Your task to perform on an android device: check battery use Image 0: 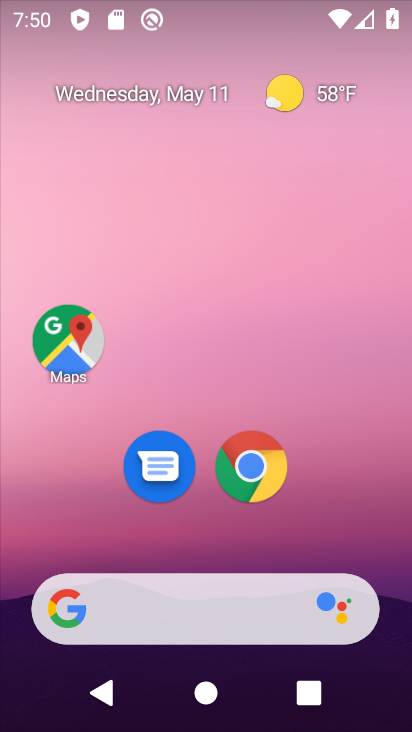
Step 0: click (274, 88)
Your task to perform on an android device: check battery use Image 1: 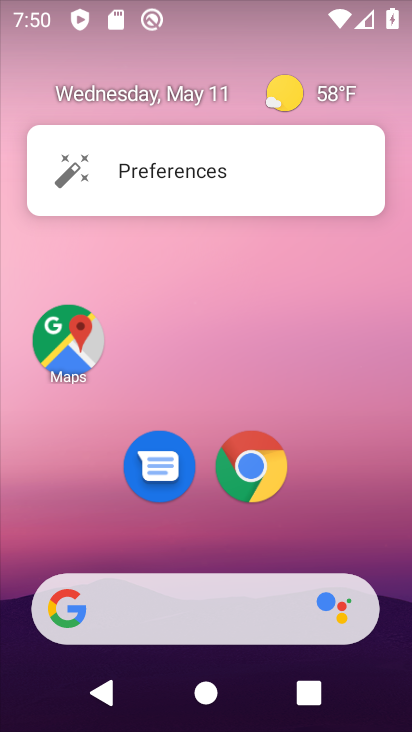
Step 1: click (246, 456)
Your task to perform on an android device: check battery use Image 2: 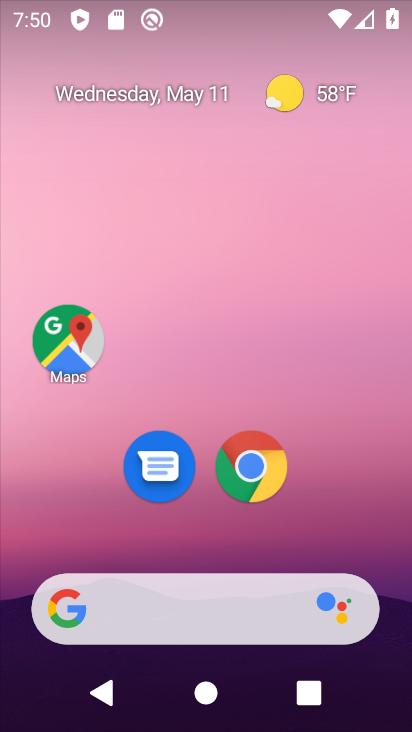
Step 2: drag from (318, 524) to (351, 83)
Your task to perform on an android device: check battery use Image 3: 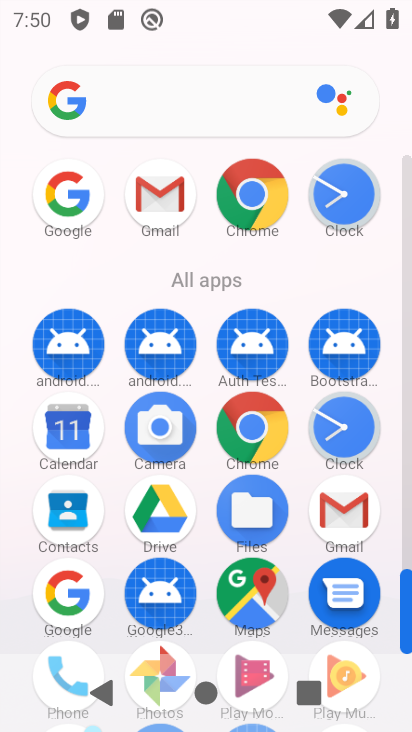
Step 3: drag from (208, 630) to (266, 230)
Your task to perform on an android device: check battery use Image 4: 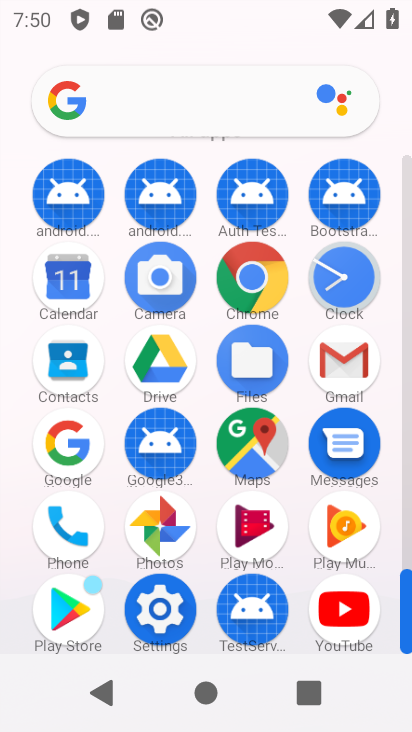
Step 4: click (159, 613)
Your task to perform on an android device: check battery use Image 5: 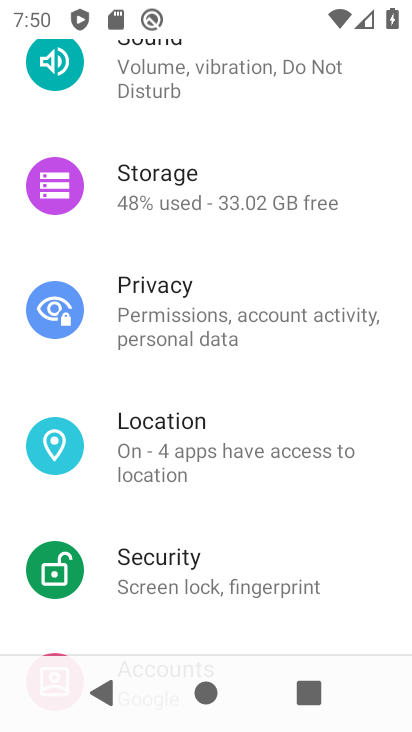
Step 5: drag from (168, 570) to (148, 690)
Your task to perform on an android device: check battery use Image 6: 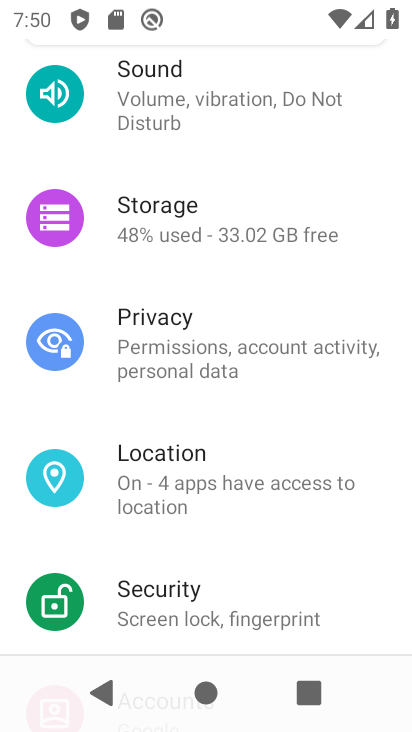
Step 6: drag from (195, 327) to (138, 553)
Your task to perform on an android device: check battery use Image 7: 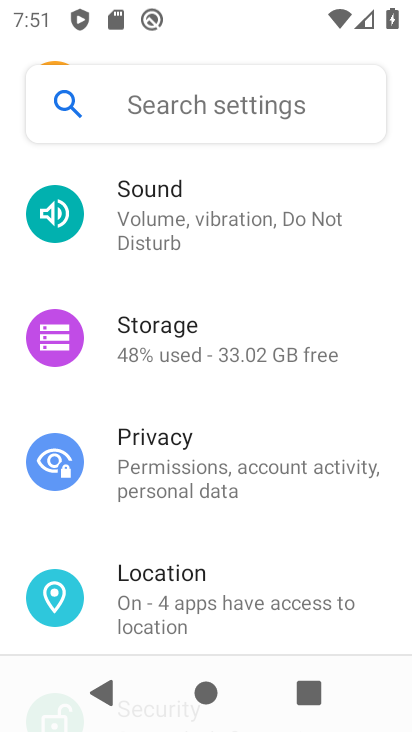
Step 7: drag from (186, 203) to (167, 466)
Your task to perform on an android device: check battery use Image 8: 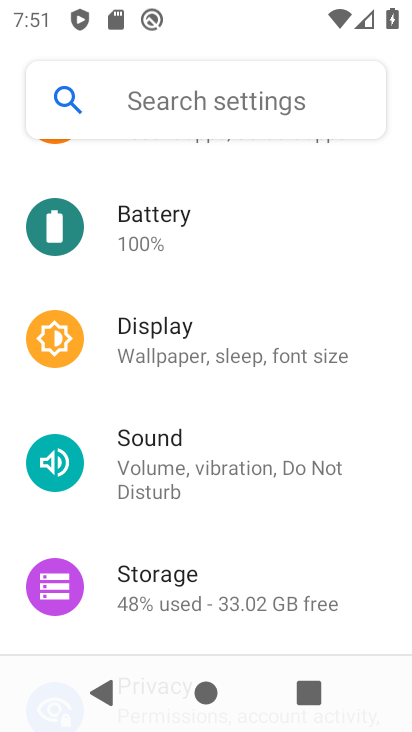
Step 8: drag from (218, 269) to (197, 460)
Your task to perform on an android device: check battery use Image 9: 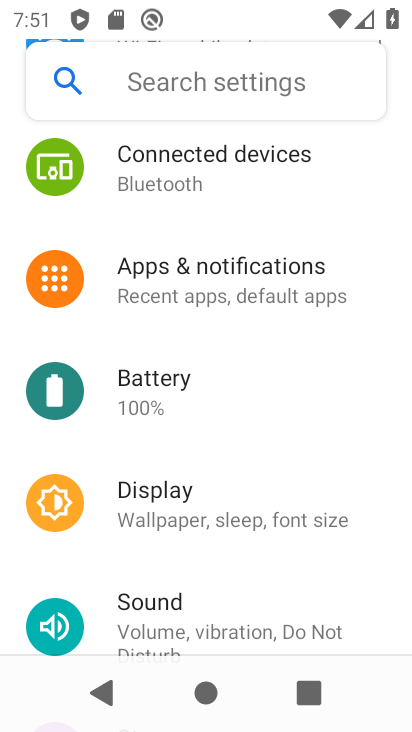
Step 9: click (141, 398)
Your task to perform on an android device: check battery use Image 10: 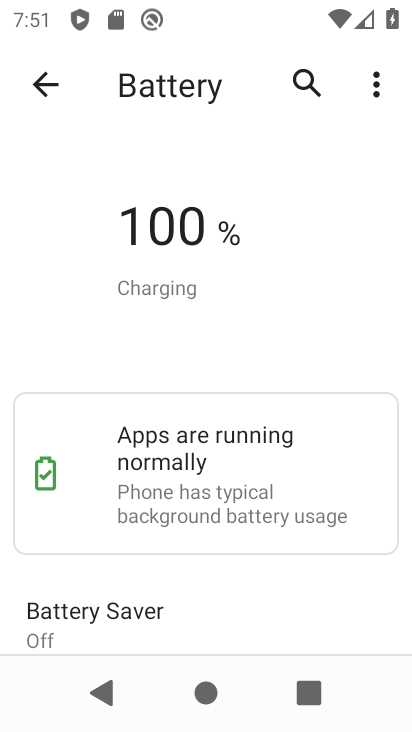
Step 10: click (363, 73)
Your task to perform on an android device: check battery use Image 11: 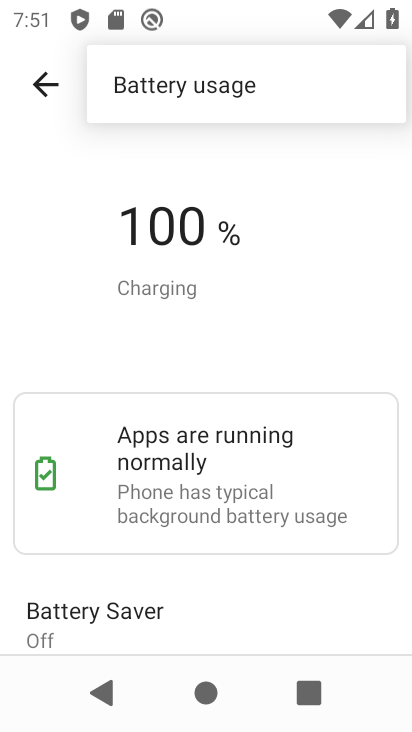
Step 11: click (317, 82)
Your task to perform on an android device: check battery use Image 12: 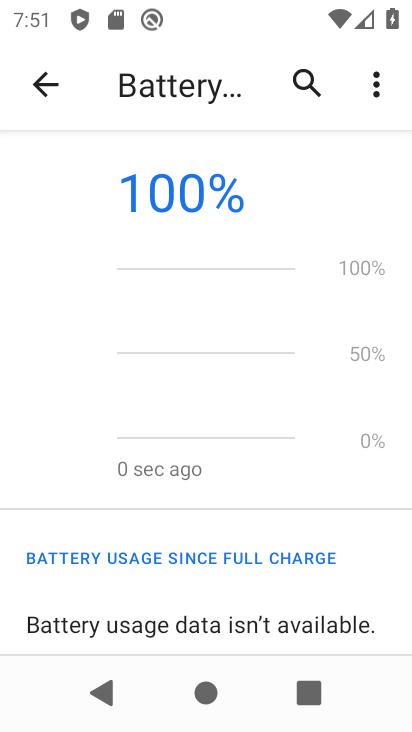
Step 12: task complete